Your task to perform on an android device: Turn off the flashlight Image 0: 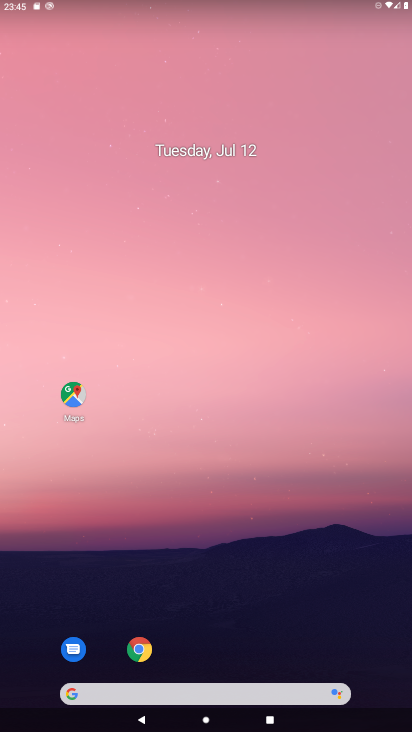
Step 0: drag from (259, 18) to (251, 493)
Your task to perform on an android device: Turn off the flashlight Image 1: 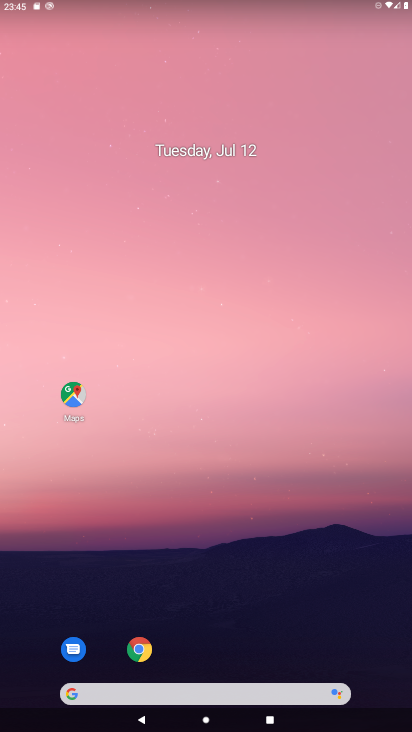
Step 1: drag from (218, 10) to (249, 401)
Your task to perform on an android device: Turn off the flashlight Image 2: 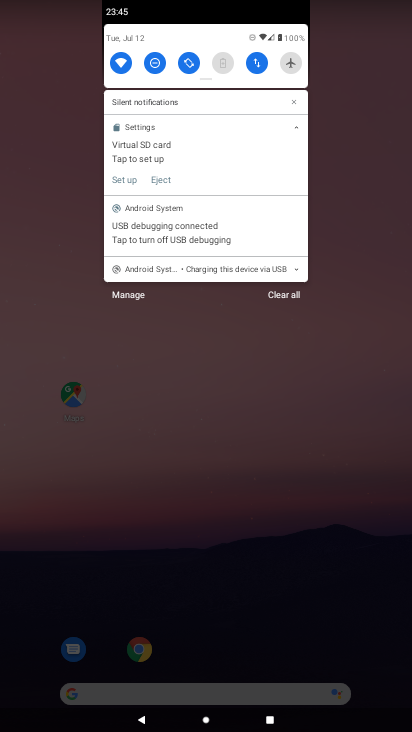
Step 2: drag from (206, 83) to (228, 391)
Your task to perform on an android device: Turn off the flashlight Image 3: 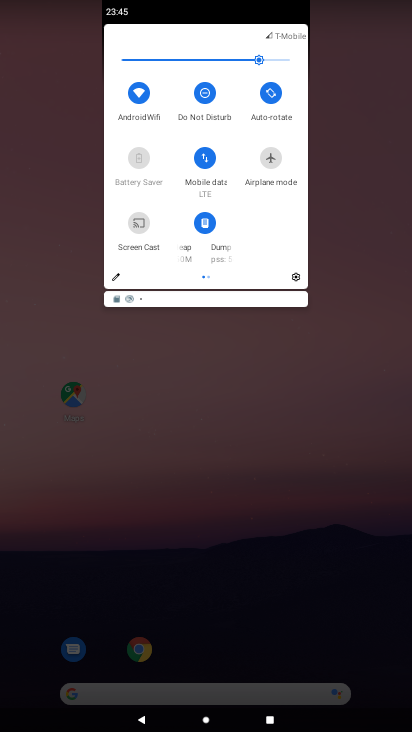
Step 3: click (113, 273)
Your task to perform on an android device: Turn off the flashlight Image 4: 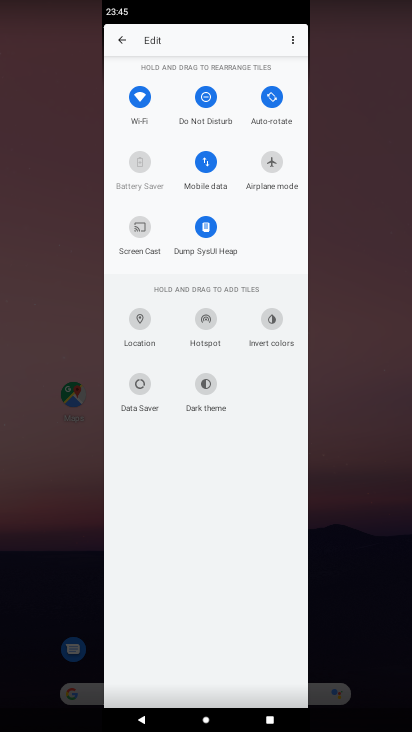
Step 4: task complete